Your task to perform on an android device: Search for dining room chairs on Crate & Barrel Image 0: 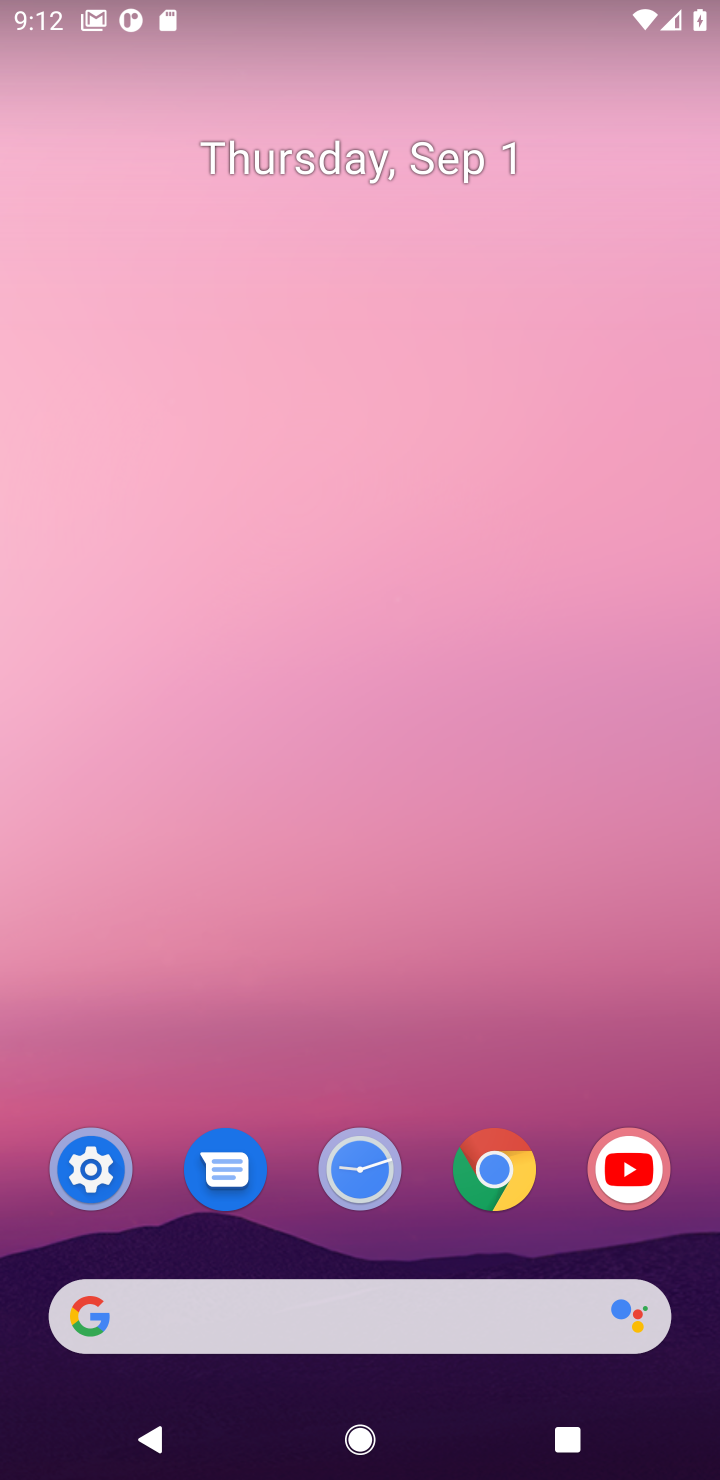
Step 0: click (381, 279)
Your task to perform on an android device: Search for dining room chairs on Crate & Barrel Image 1: 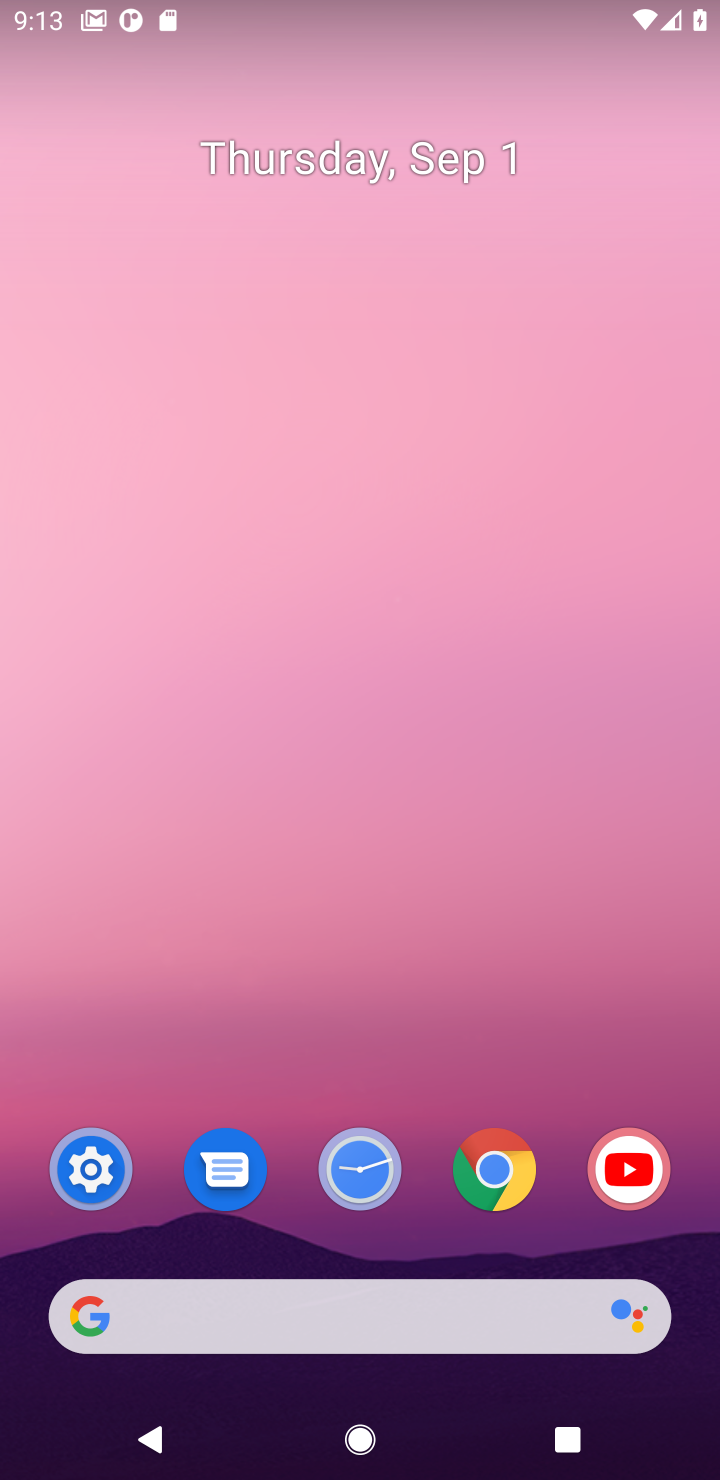
Step 1: drag from (421, 1085) to (286, 247)
Your task to perform on an android device: Search for dining room chairs on Crate & Barrel Image 2: 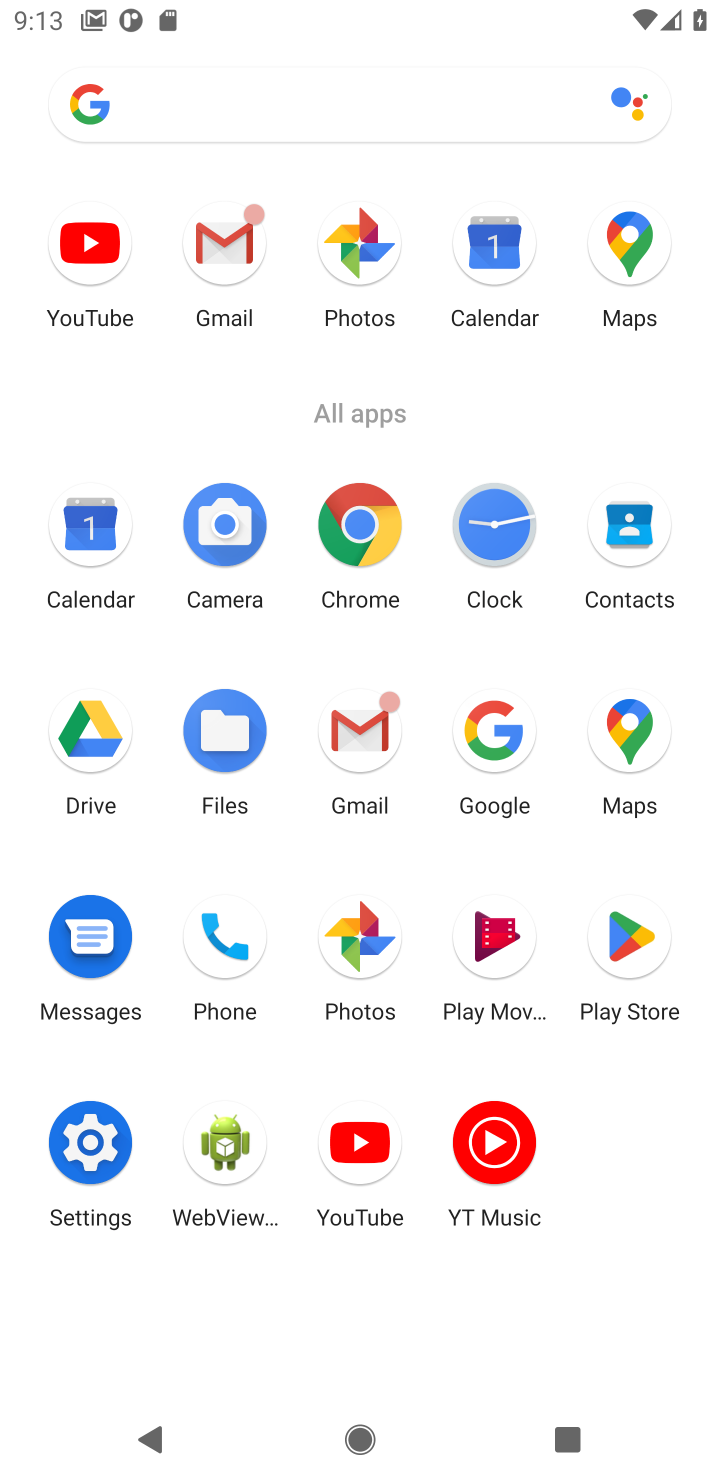
Step 2: click (372, 521)
Your task to perform on an android device: Search for dining room chairs on Crate & Barrel Image 3: 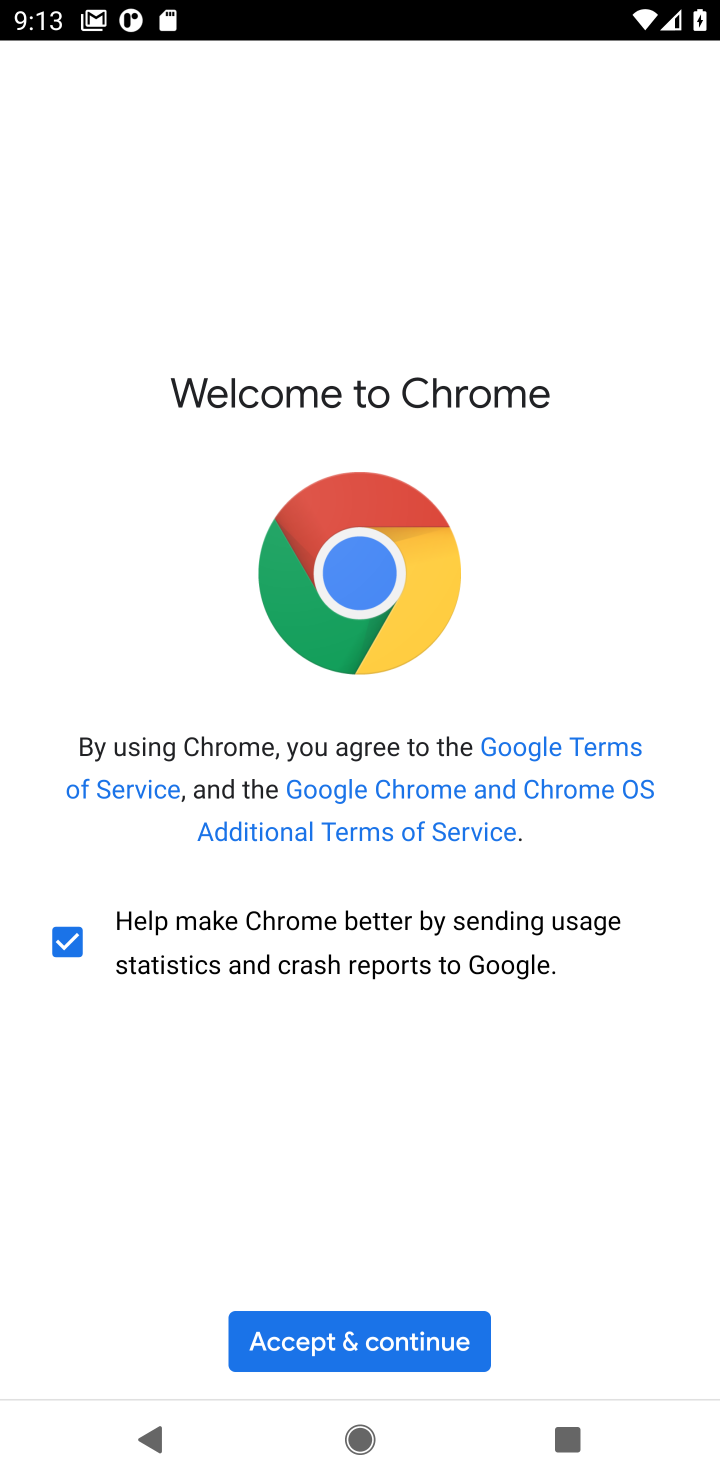
Step 3: click (363, 1354)
Your task to perform on an android device: Search for dining room chairs on Crate & Barrel Image 4: 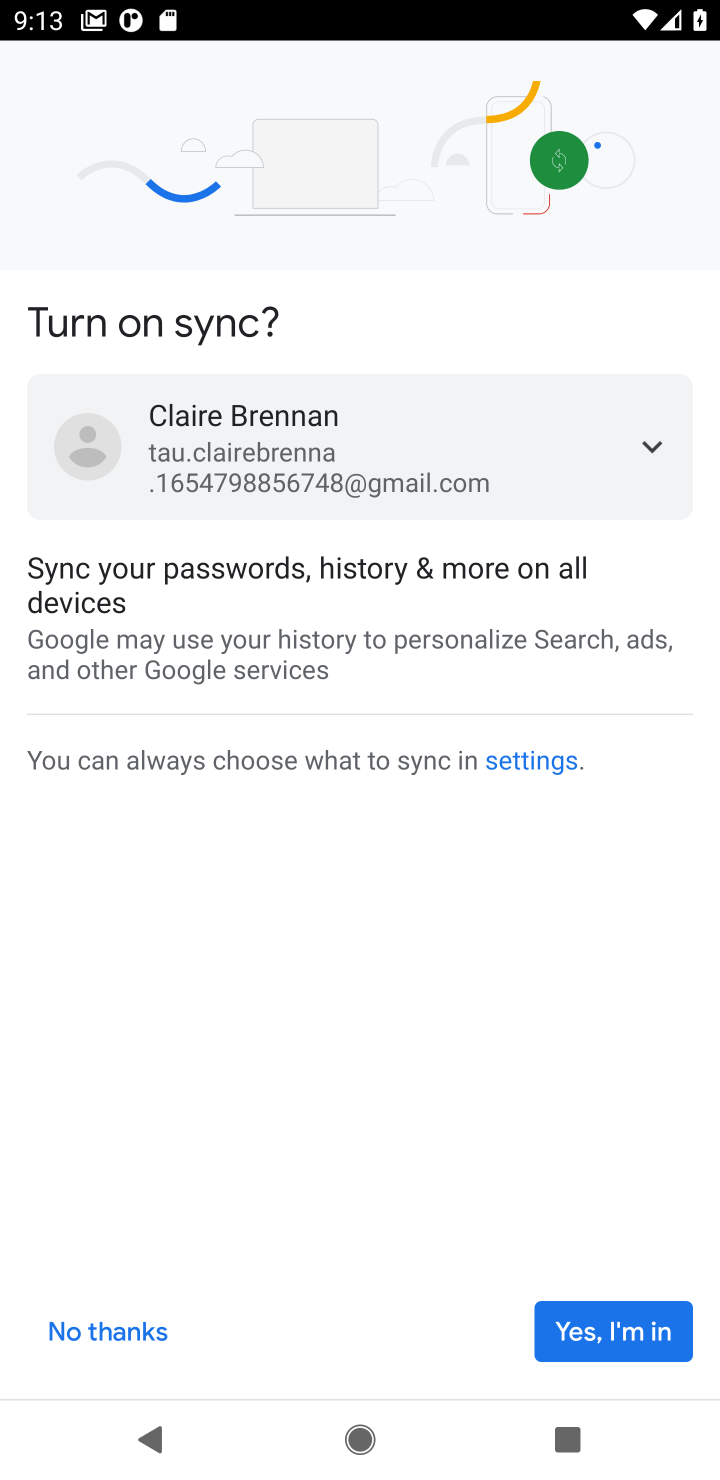
Step 4: click (620, 1319)
Your task to perform on an android device: Search for dining room chairs on Crate & Barrel Image 5: 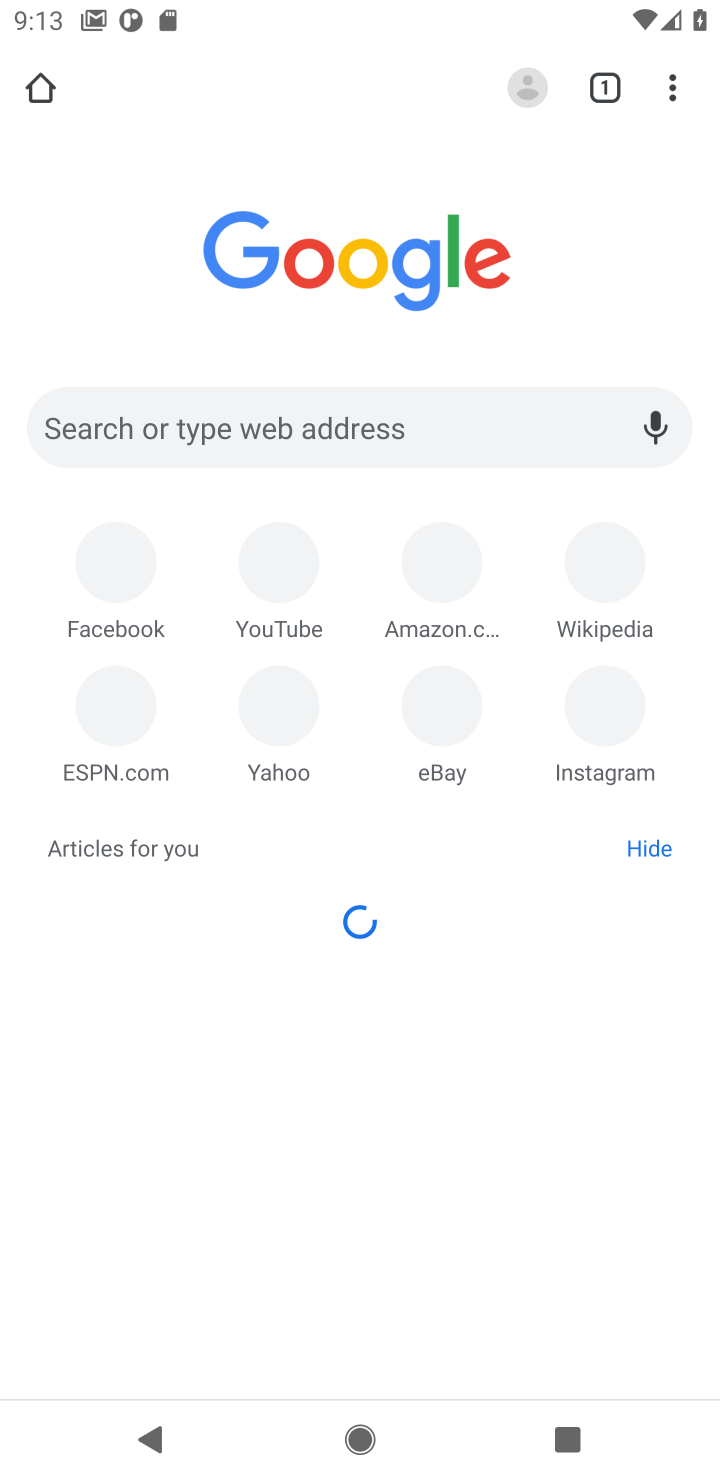
Step 5: click (245, 421)
Your task to perform on an android device: Search for dining room chairs on Crate & Barrel Image 6: 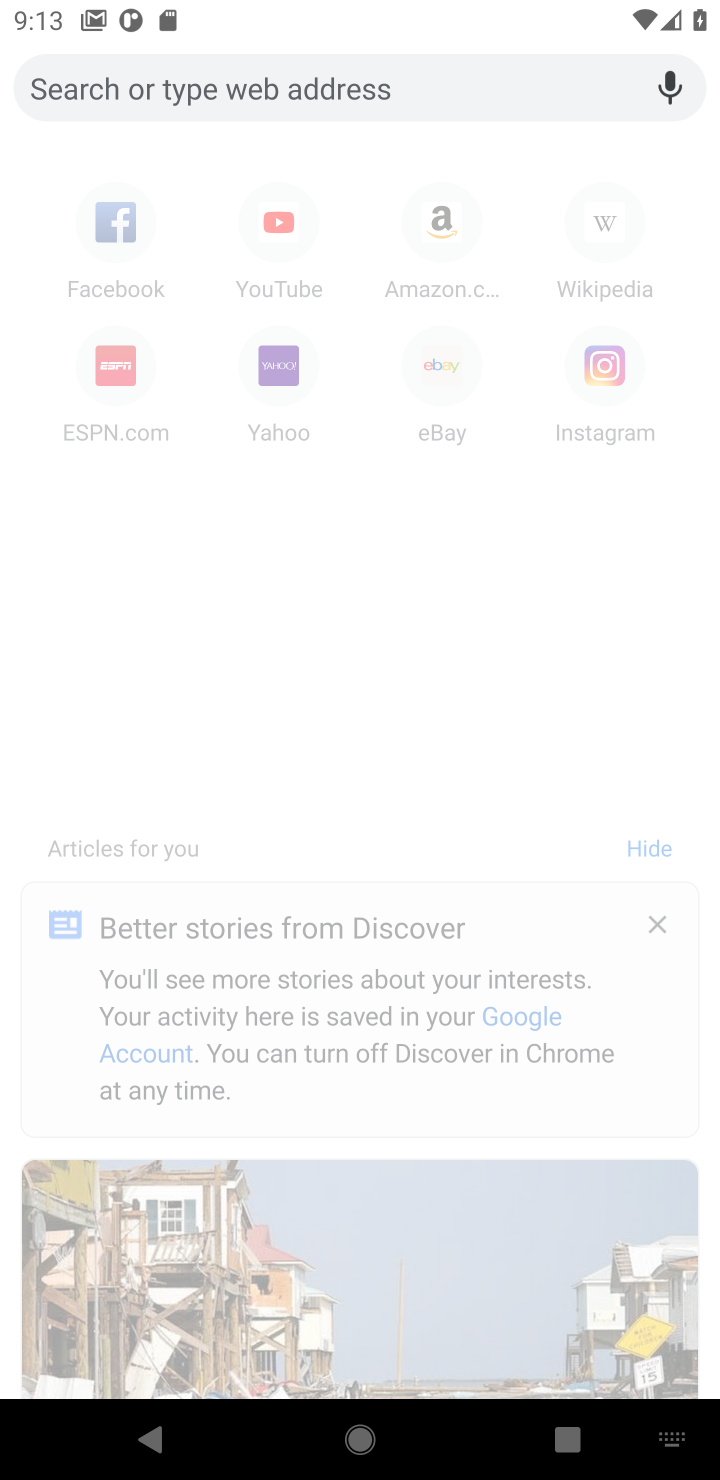
Step 6: type "dining room chairs on Crate & Barrel"
Your task to perform on an android device: Search for dining room chairs on Crate & Barrel Image 7: 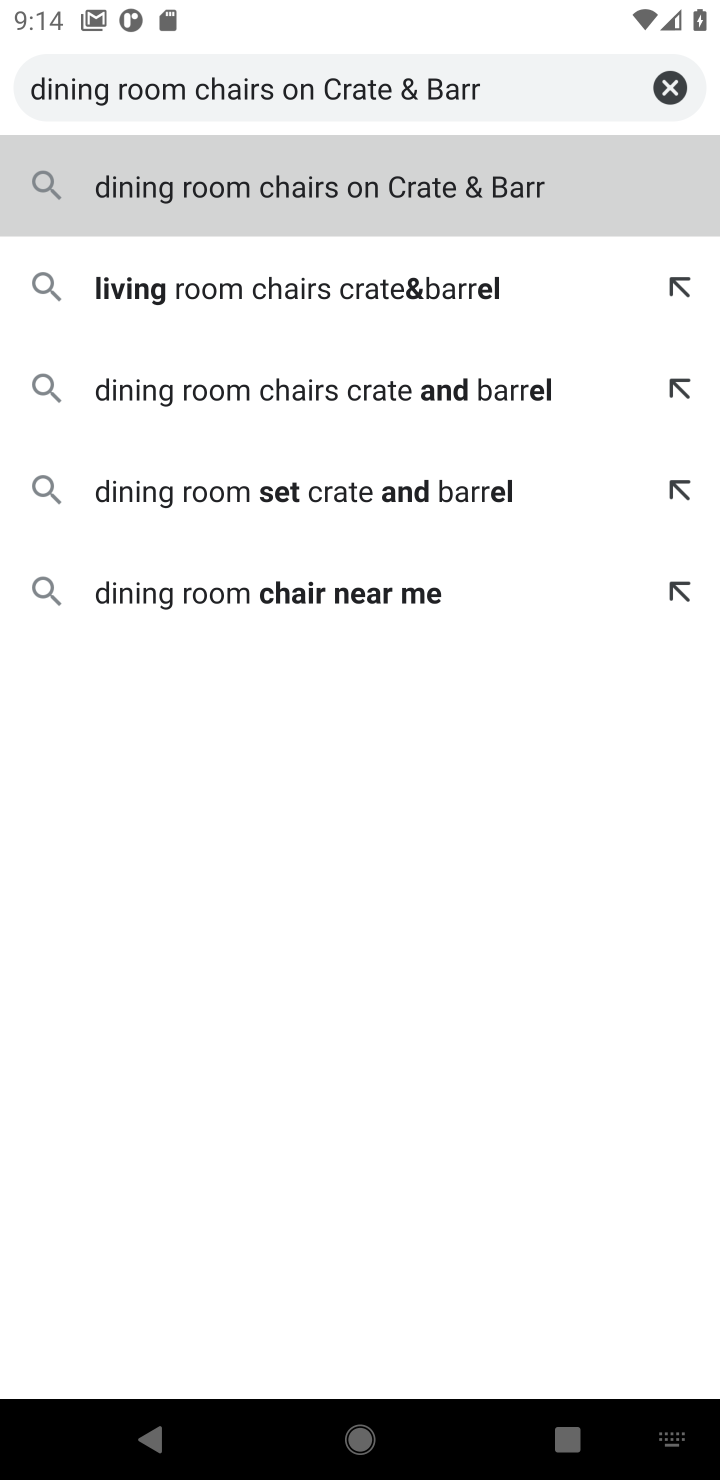
Step 7: type "dining room chairs on Crate & Barrel"
Your task to perform on an android device: Search for dining room chairs on Crate & Barrel Image 8: 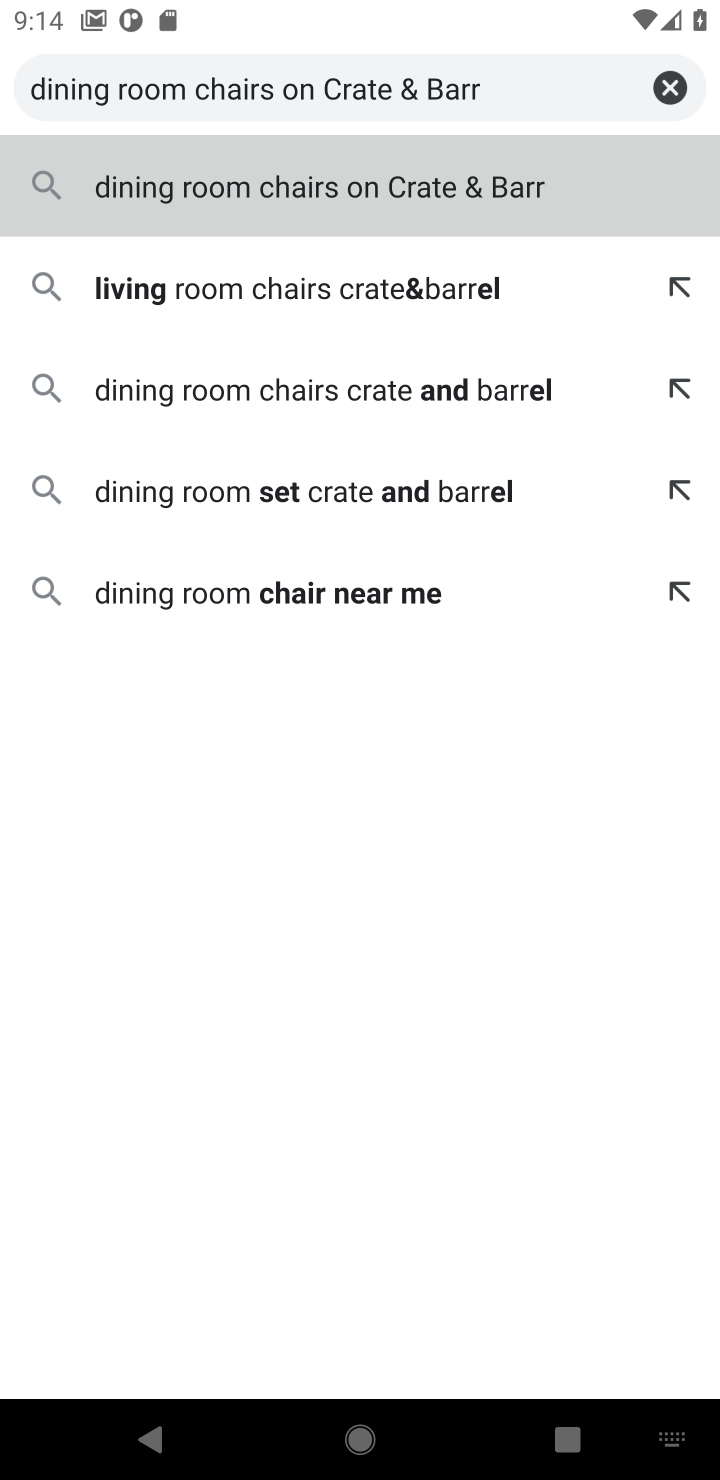
Step 8: click (247, 216)
Your task to perform on an android device: Search for dining room chairs on Crate & Barrel Image 9: 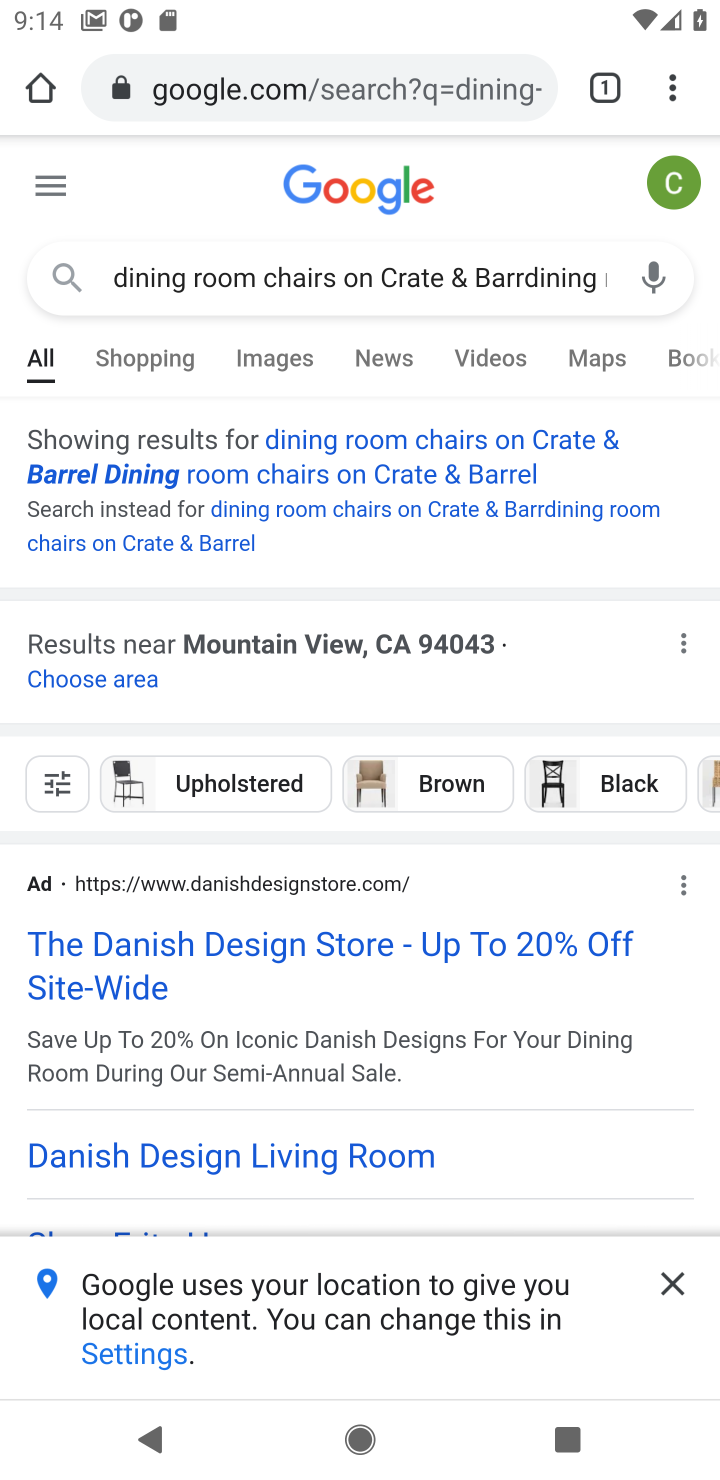
Step 9: click (478, 287)
Your task to perform on an android device: Search for dining room chairs on Crate & Barrel Image 10: 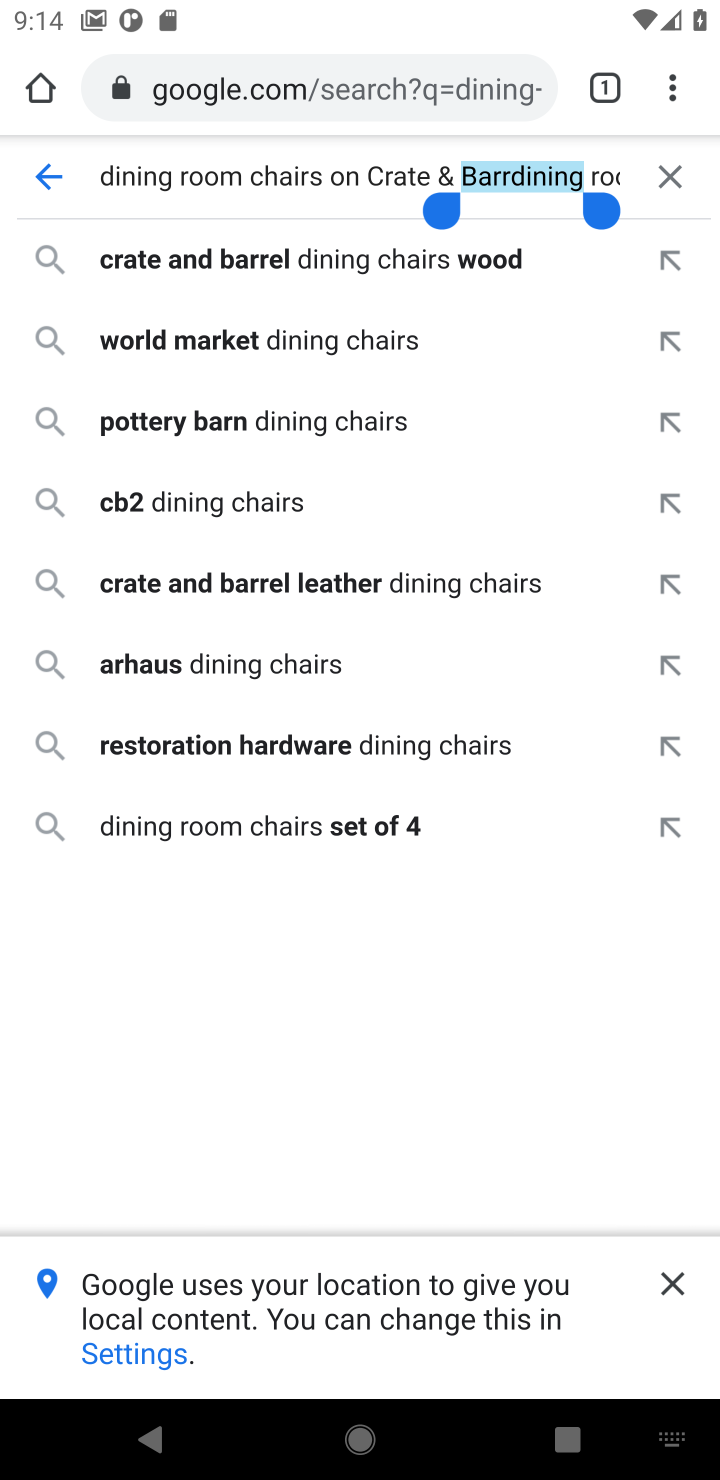
Step 10: click (670, 177)
Your task to perform on an android device: Search for dining room chairs on Crate & Barrel Image 11: 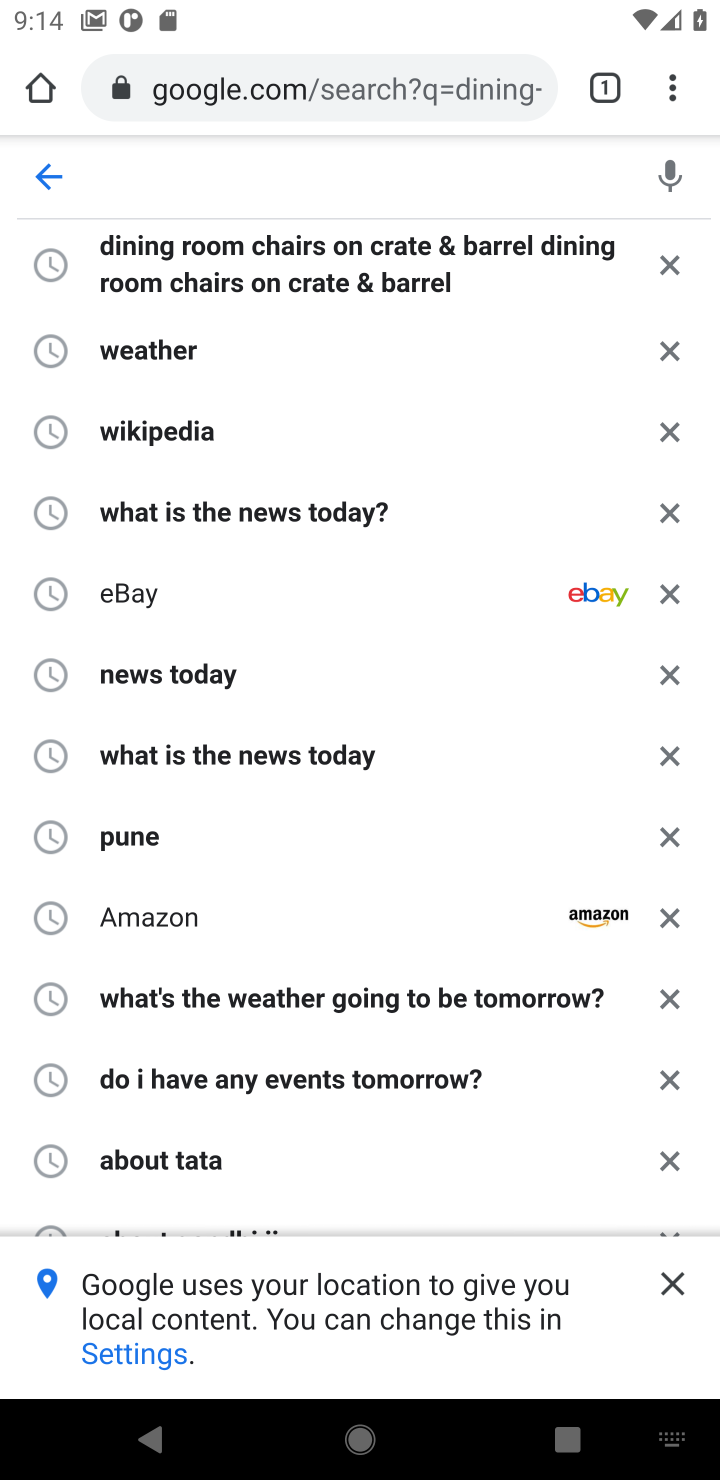
Step 11: type "dining room chairs on Crate & Barrel"
Your task to perform on an android device: Search for dining room chairs on Crate & Barrel Image 12: 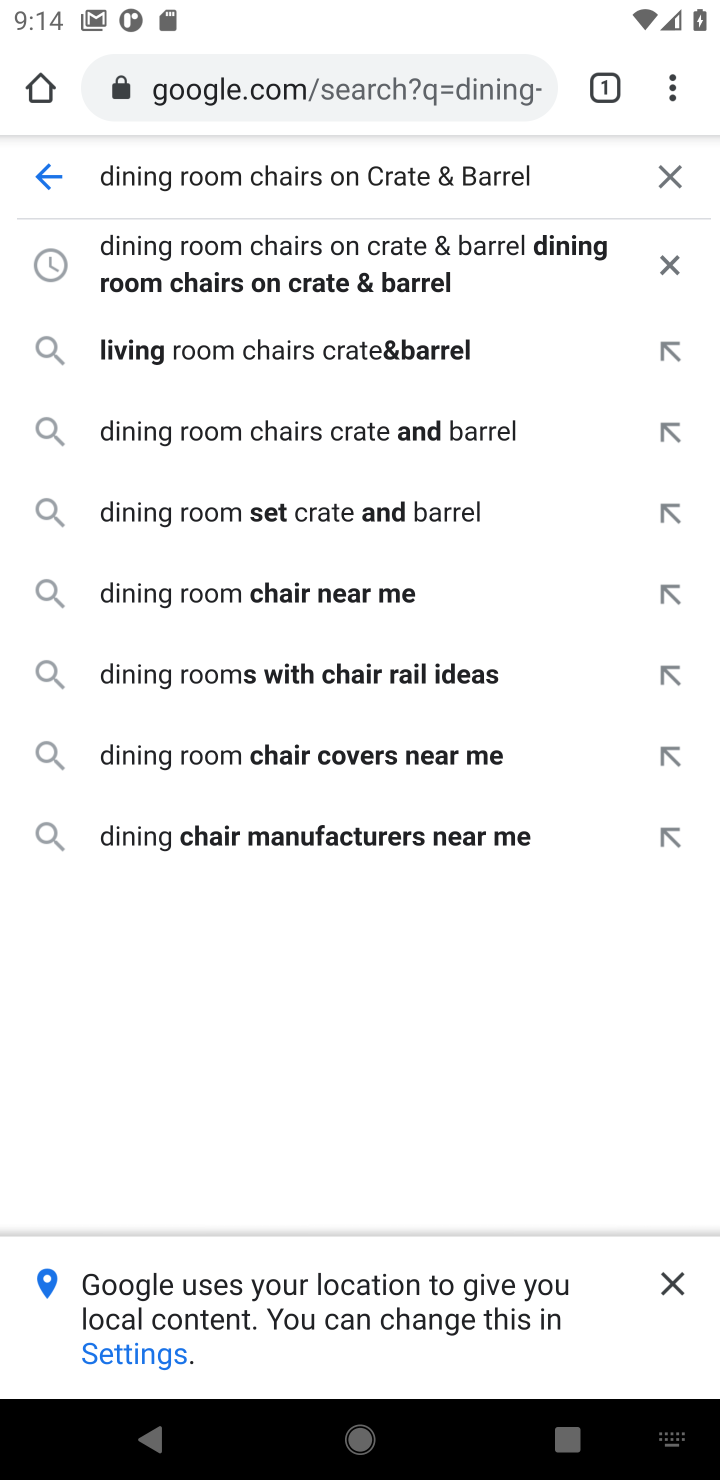
Step 12: click (659, 267)
Your task to perform on an android device: Search for dining room chairs on Crate & Barrel Image 13: 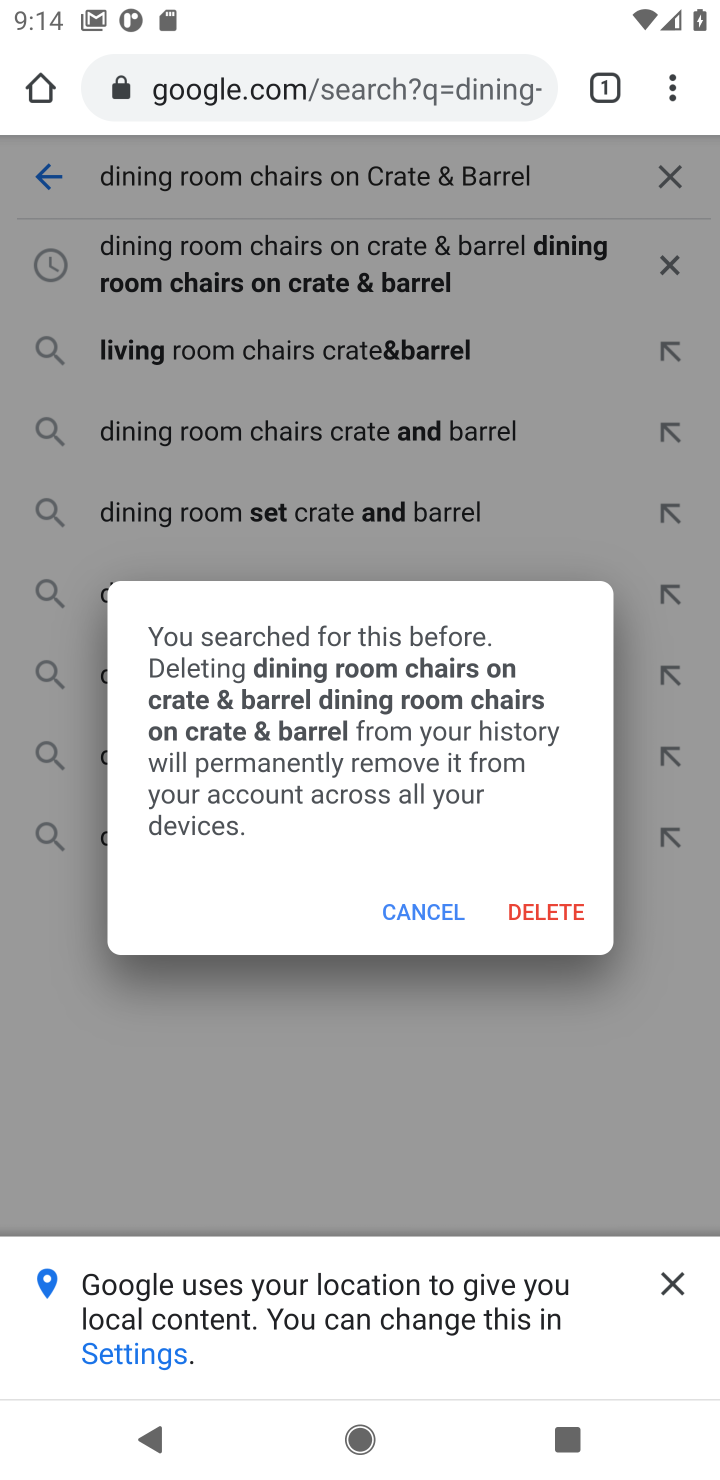
Step 13: click (572, 920)
Your task to perform on an android device: Search for dining room chairs on Crate & Barrel Image 14: 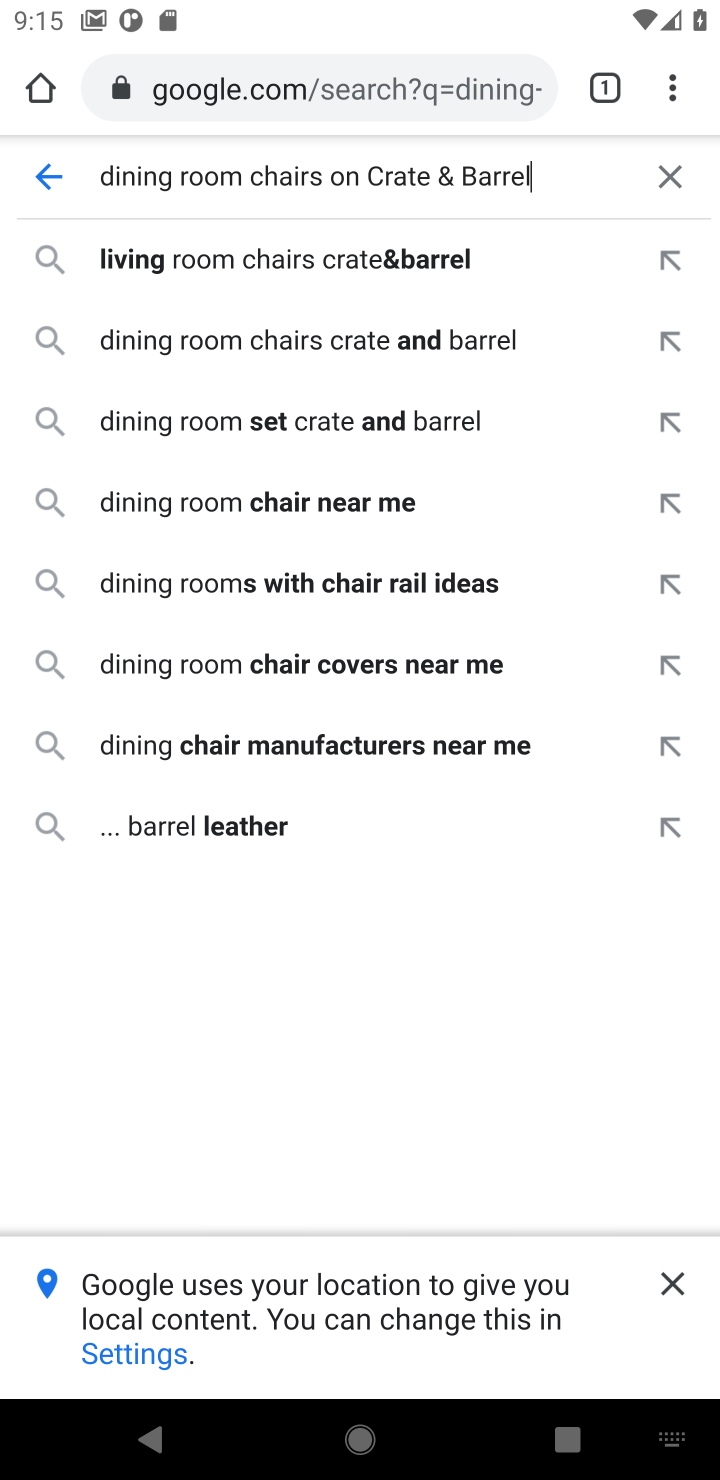
Step 14: click (379, 347)
Your task to perform on an android device: Search for dining room chairs on Crate & Barrel Image 15: 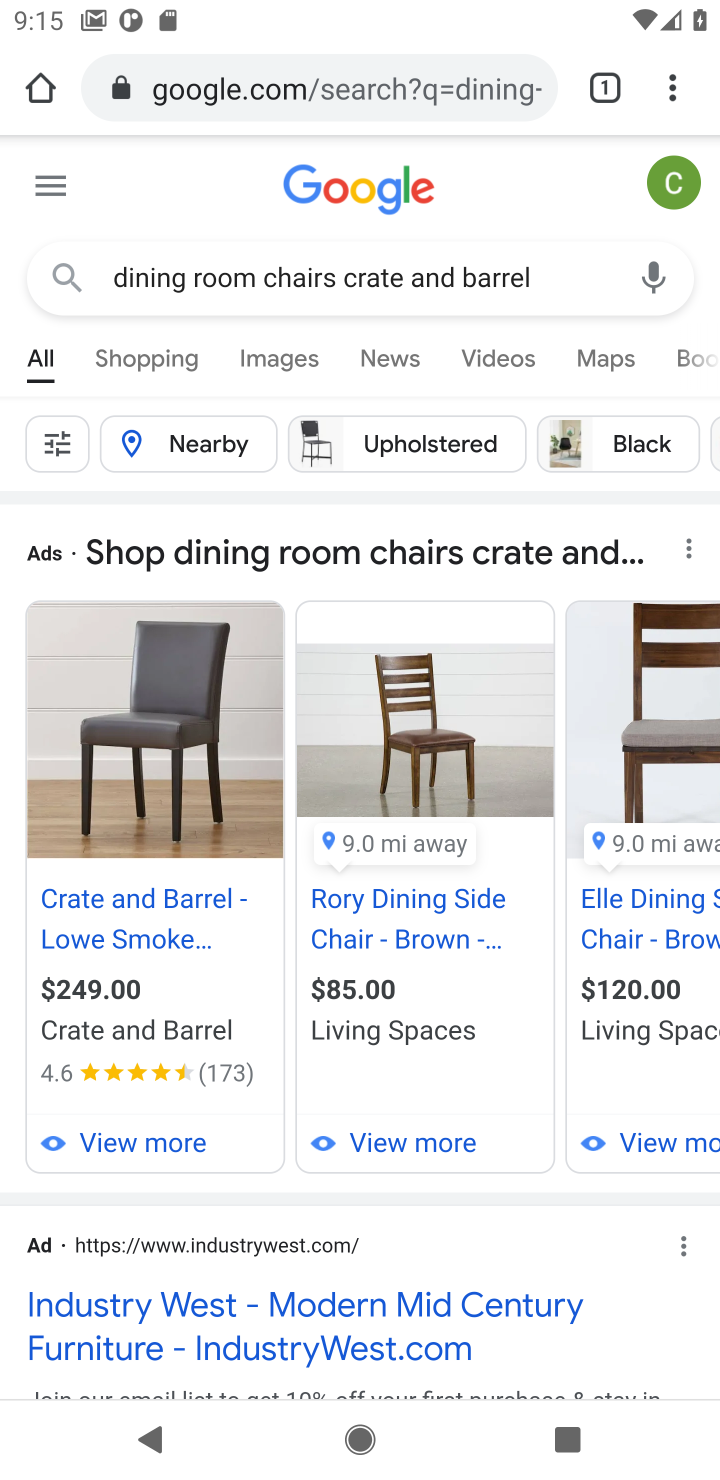
Step 15: drag from (417, 1229) to (429, 454)
Your task to perform on an android device: Search for dining room chairs on Crate & Barrel Image 16: 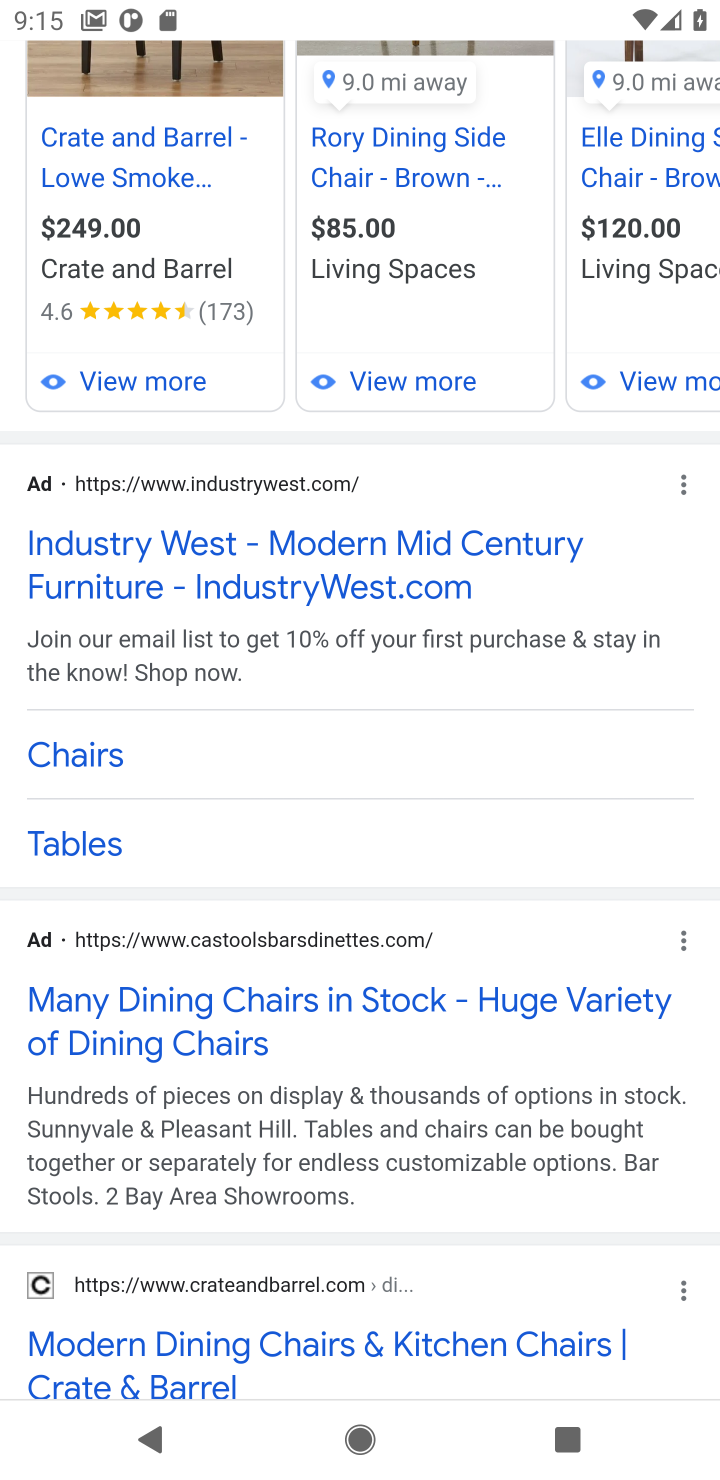
Step 16: click (317, 1347)
Your task to perform on an android device: Search for dining room chairs on Crate & Barrel Image 17: 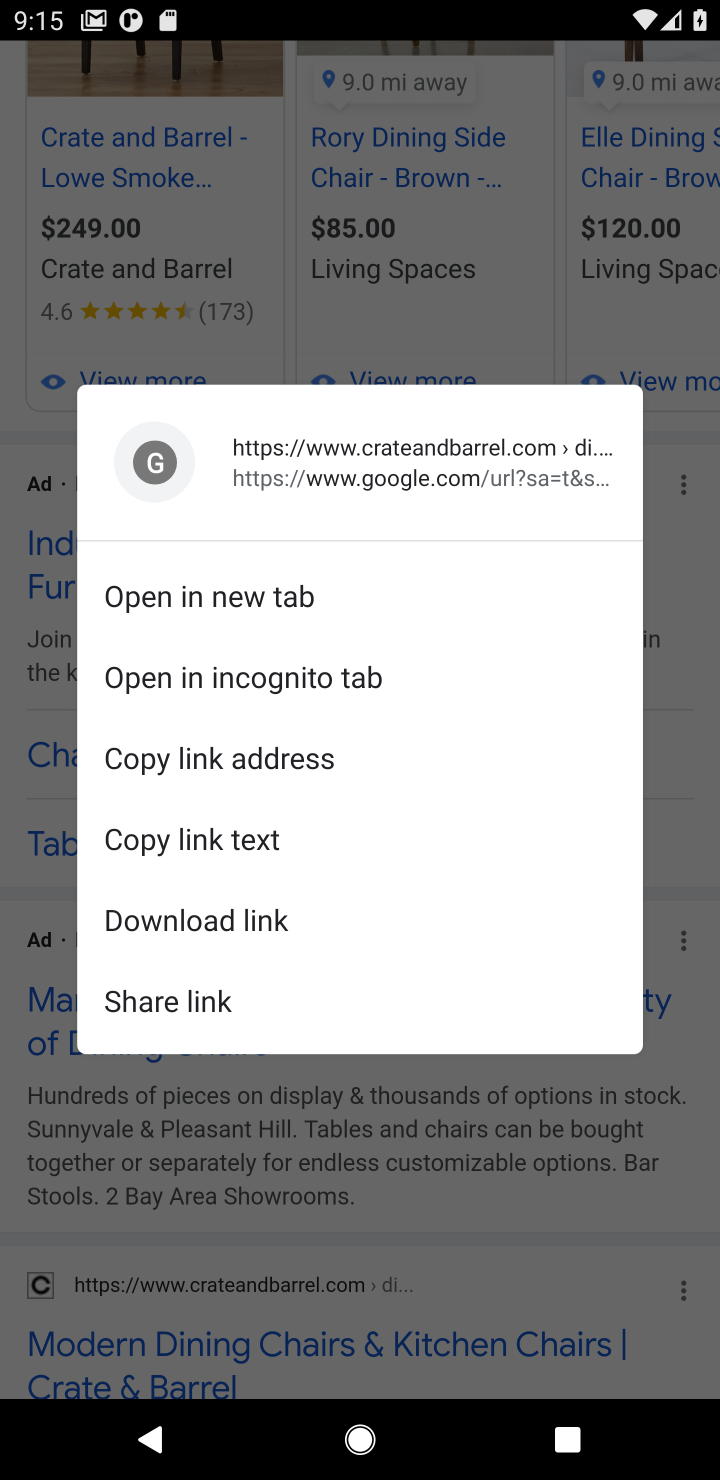
Step 17: click (360, 1335)
Your task to perform on an android device: Search for dining room chairs on Crate & Barrel Image 18: 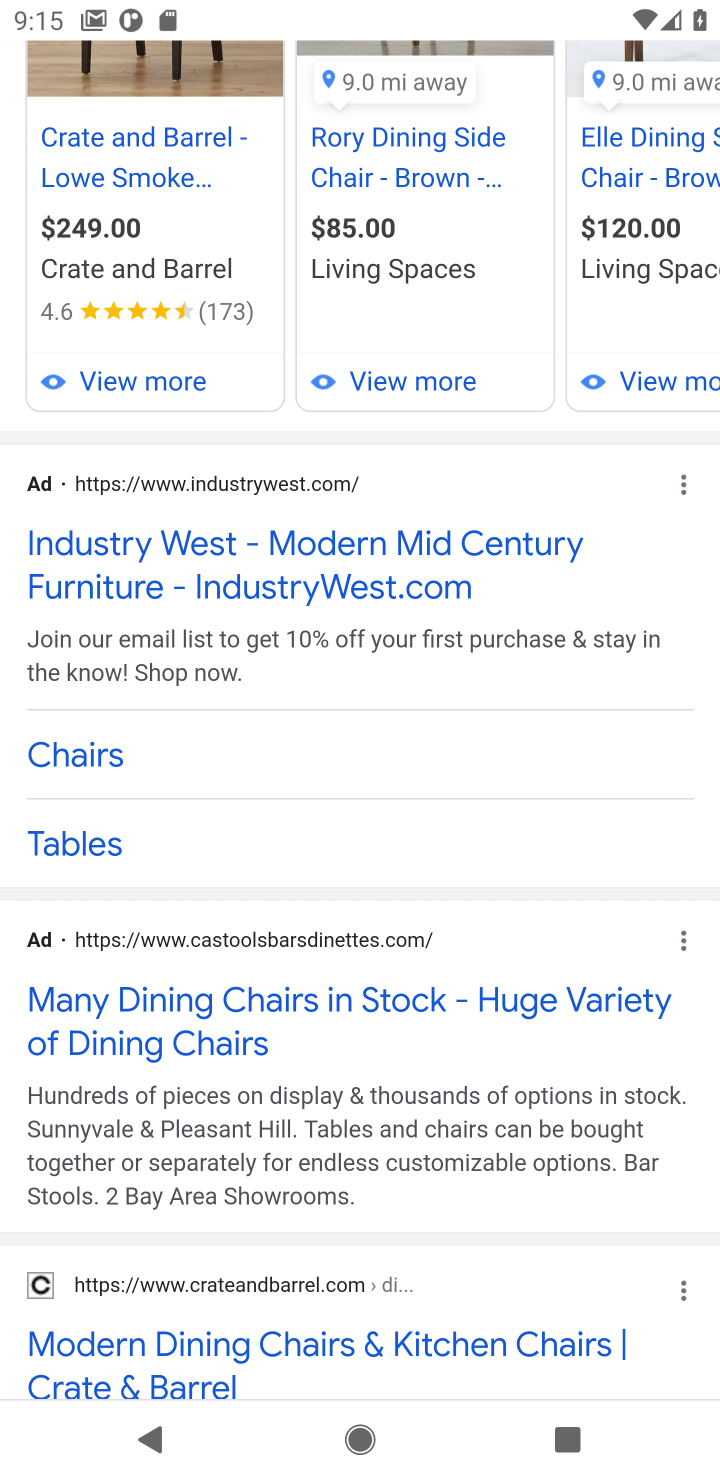
Step 18: click (441, 1348)
Your task to perform on an android device: Search for dining room chairs on Crate & Barrel Image 19: 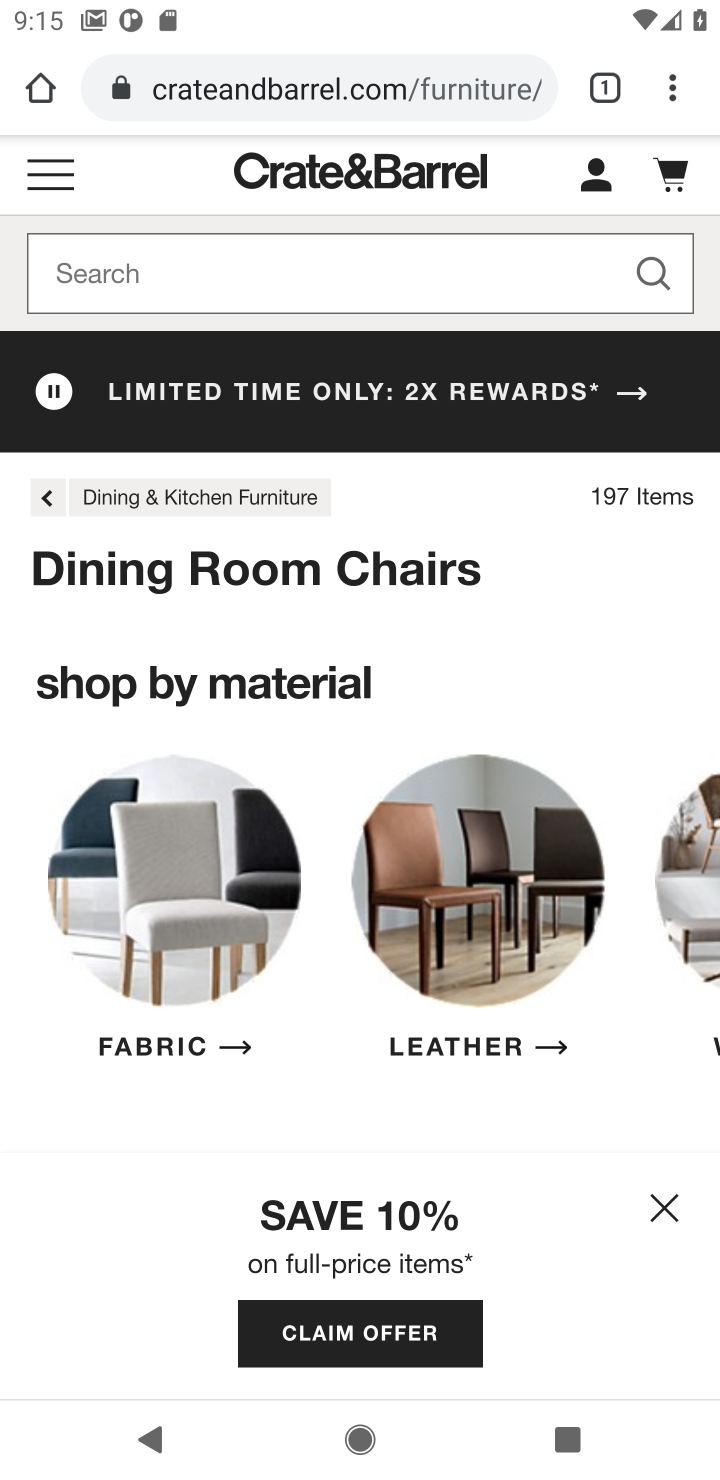
Step 19: click (665, 1203)
Your task to perform on an android device: Search for dining room chairs on Crate & Barrel Image 20: 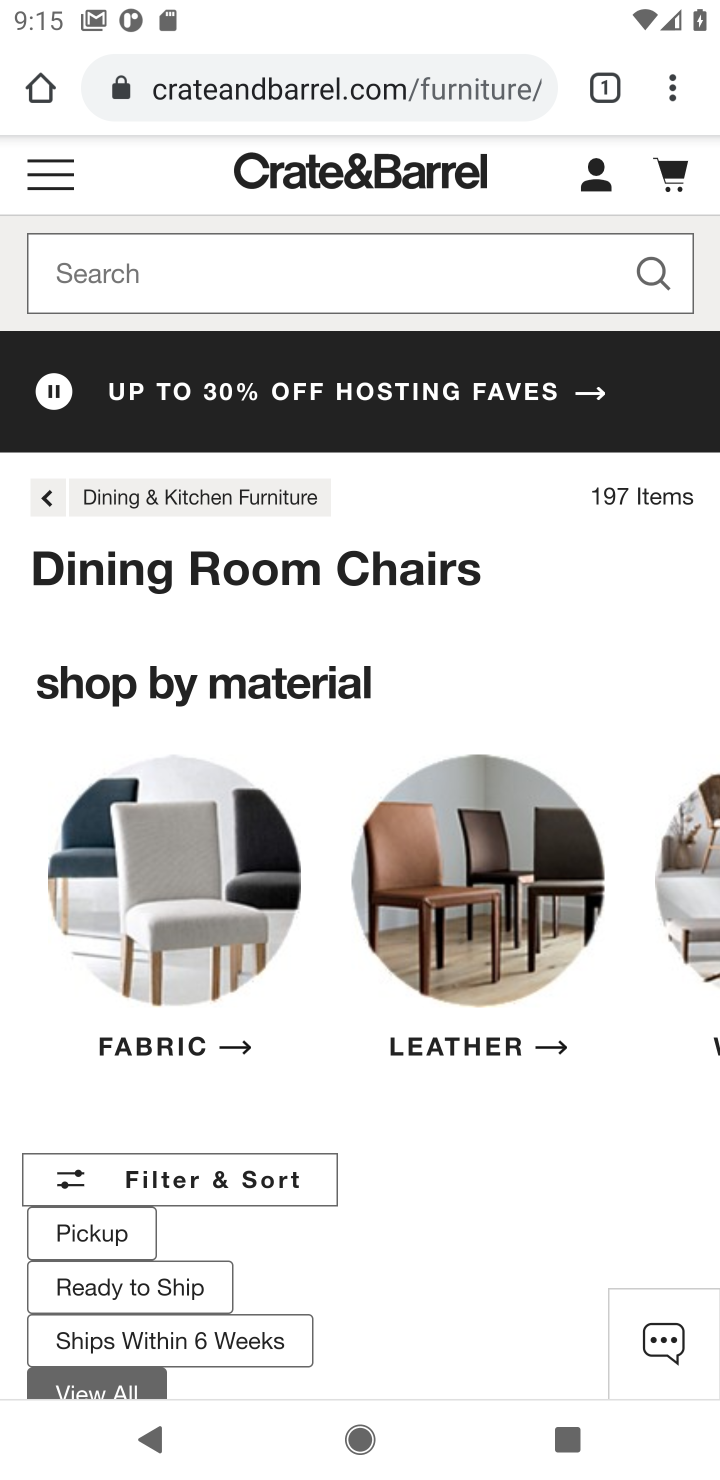
Step 20: task complete